Your task to perform on an android device: Search for Mexican restaurants on Maps Image 0: 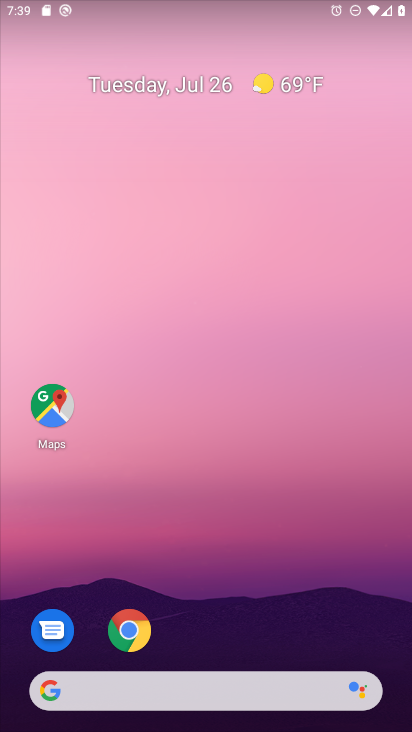
Step 0: drag from (212, 640) to (246, 242)
Your task to perform on an android device: Search for Mexican restaurants on Maps Image 1: 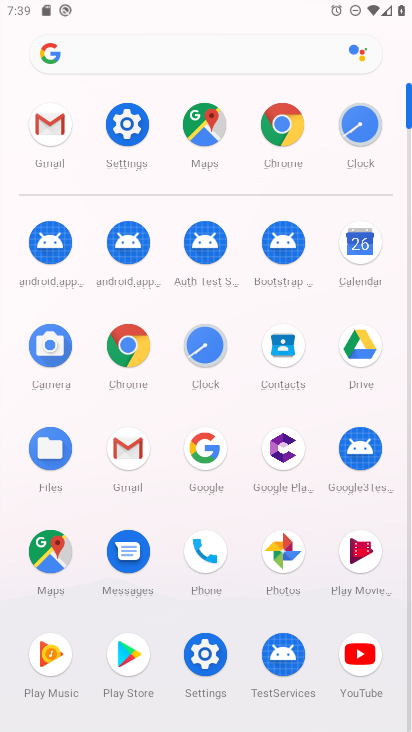
Step 1: click (50, 546)
Your task to perform on an android device: Search for Mexican restaurants on Maps Image 2: 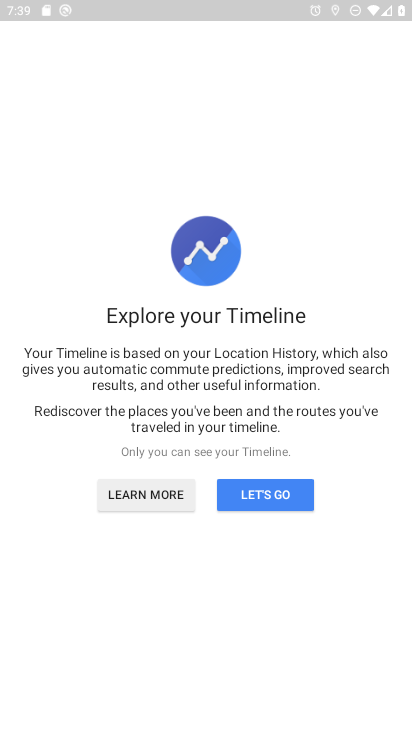
Step 2: press back button
Your task to perform on an android device: Search for Mexican restaurants on Maps Image 3: 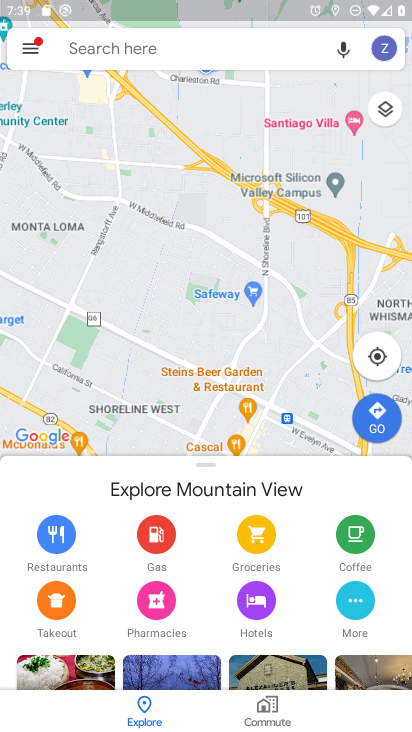
Step 3: click (216, 41)
Your task to perform on an android device: Search for Mexican restaurants on Maps Image 4: 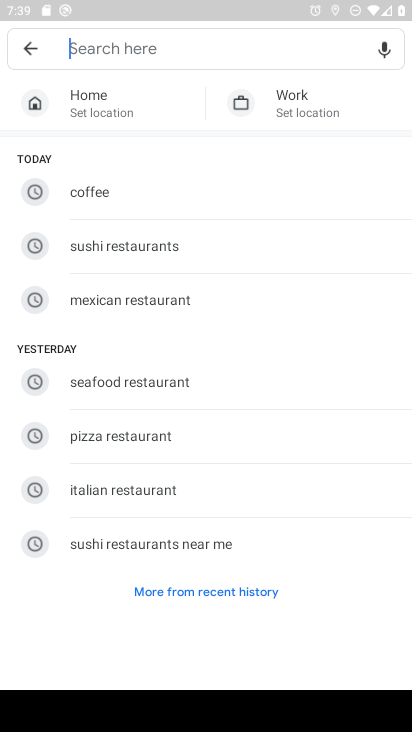
Step 4: click (203, 295)
Your task to perform on an android device: Search for Mexican restaurants on Maps Image 5: 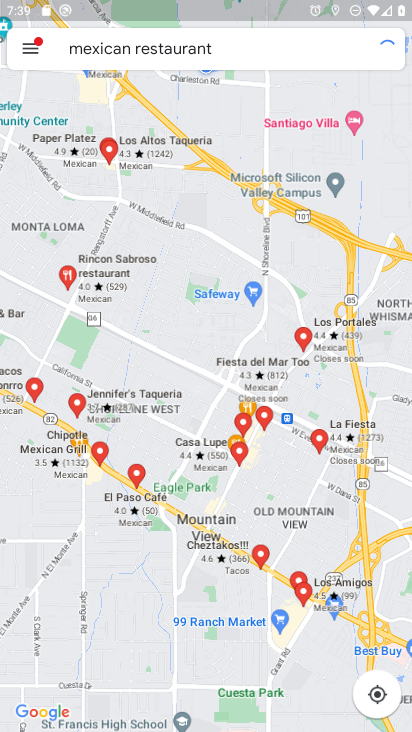
Step 5: click (201, 292)
Your task to perform on an android device: Search for Mexican restaurants on Maps Image 6: 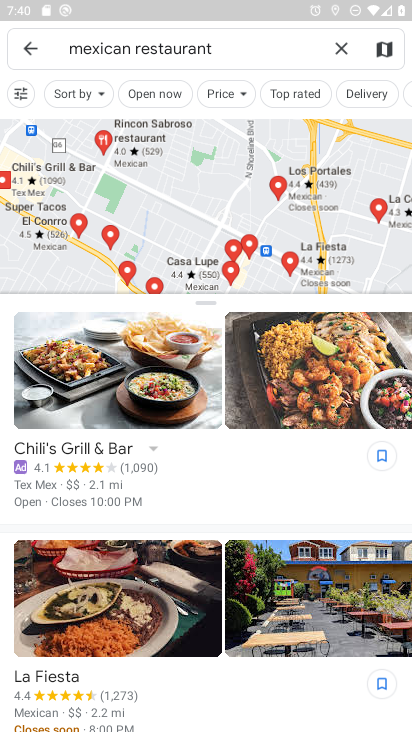
Step 6: task complete